Your task to perform on an android device: toggle improve location accuracy Image 0: 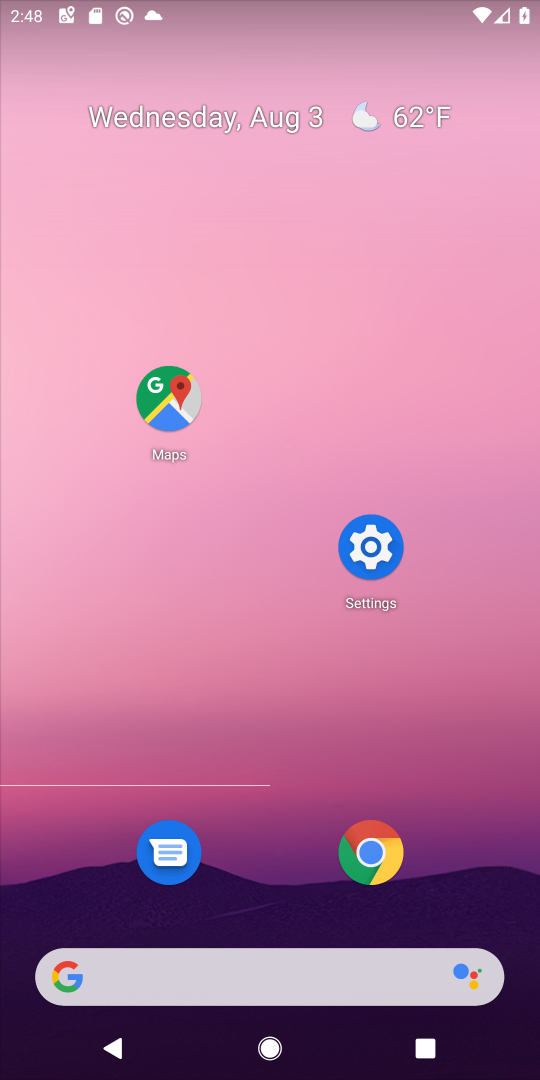
Step 0: press home button
Your task to perform on an android device: toggle improve location accuracy Image 1: 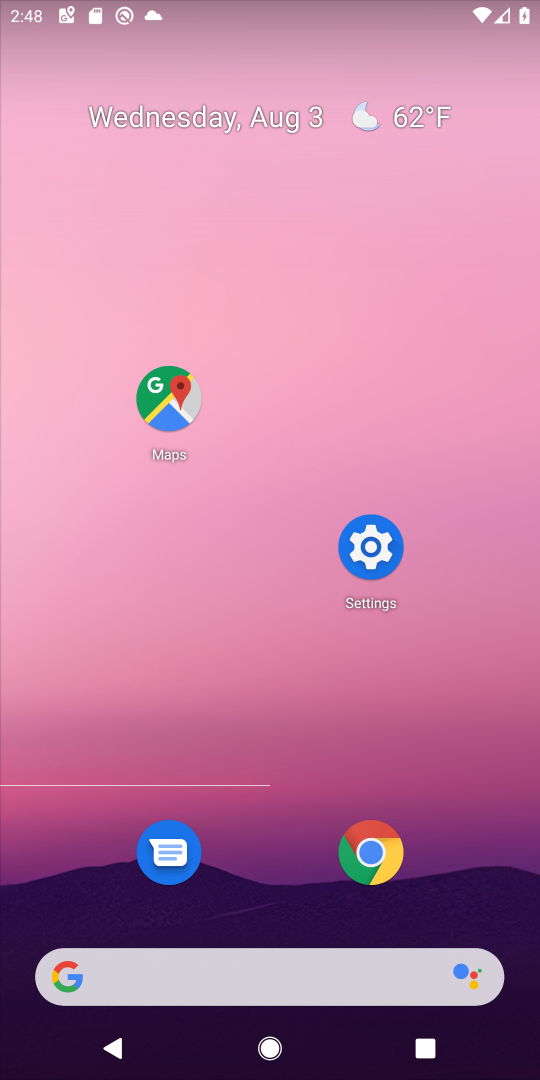
Step 1: drag from (226, 968) to (336, 206)
Your task to perform on an android device: toggle improve location accuracy Image 2: 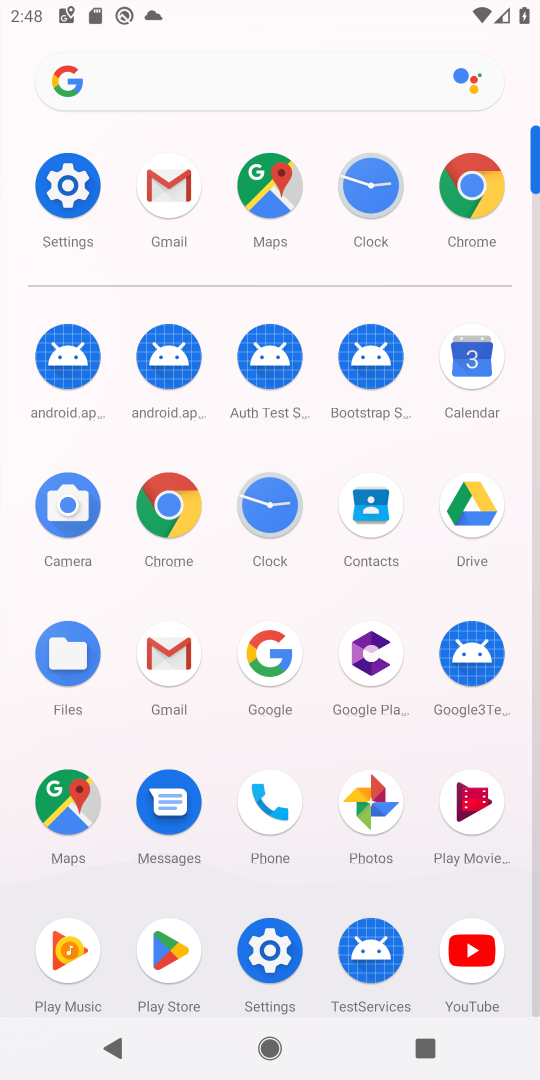
Step 2: click (66, 182)
Your task to perform on an android device: toggle improve location accuracy Image 3: 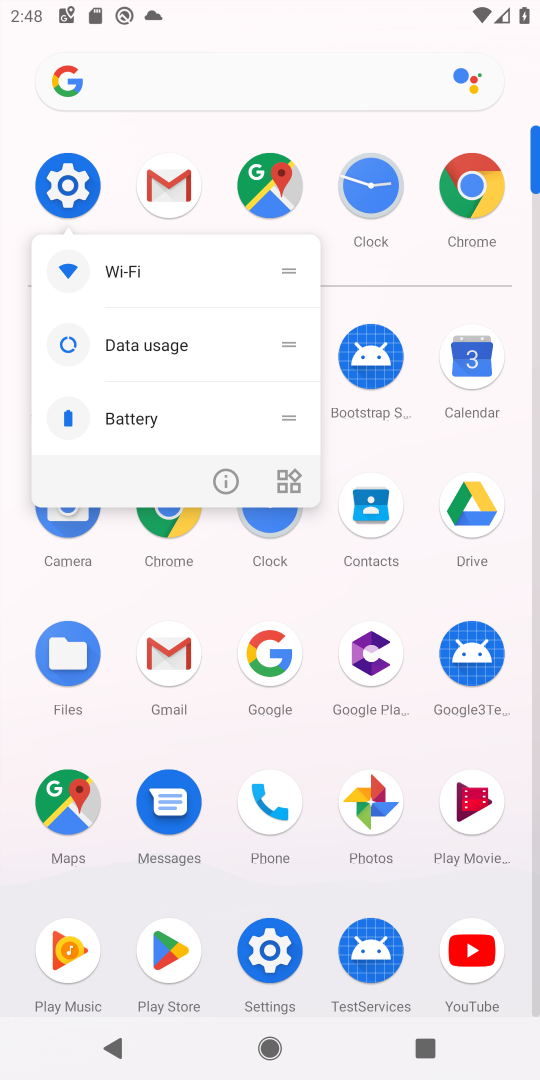
Step 3: click (66, 184)
Your task to perform on an android device: toggle improve location accuracy Image 4: 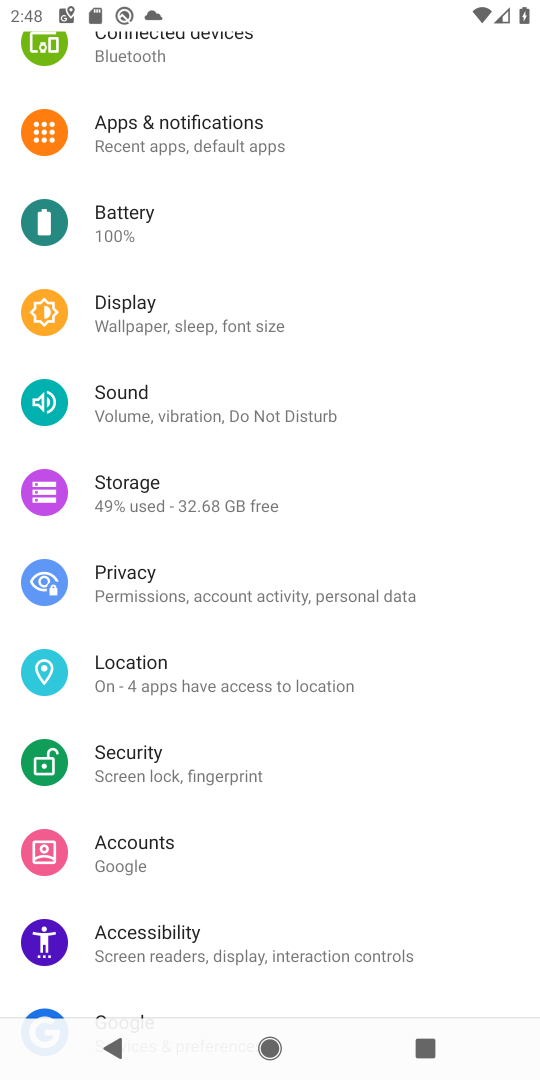
Step 4: click (187, 672)
Your task to perform on an android device: toggle improve location accuracy Image 5: 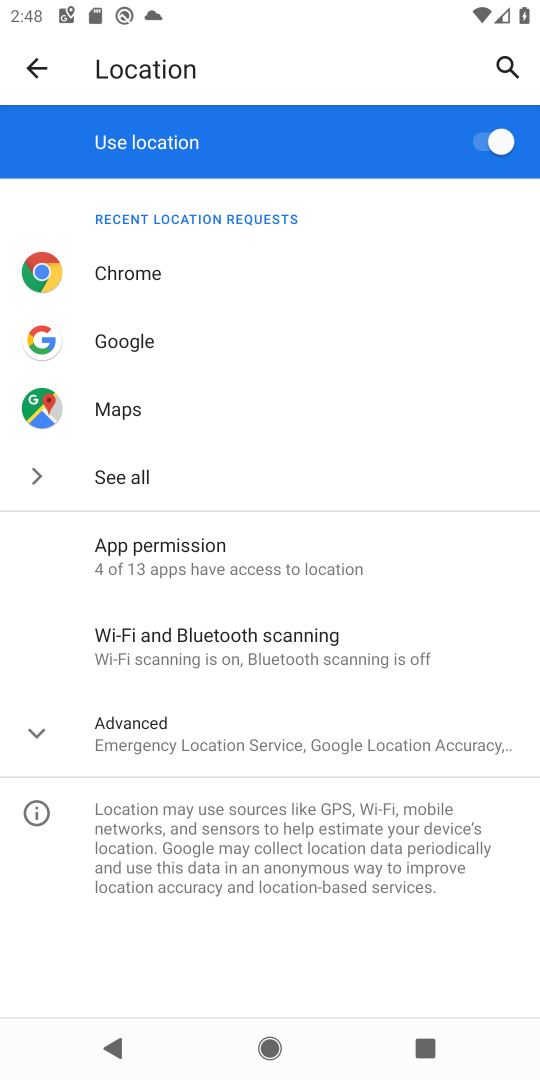
Step 5: click (163, 735)
Your task to perform on an android device: toggle improve location accuracy Image 6: 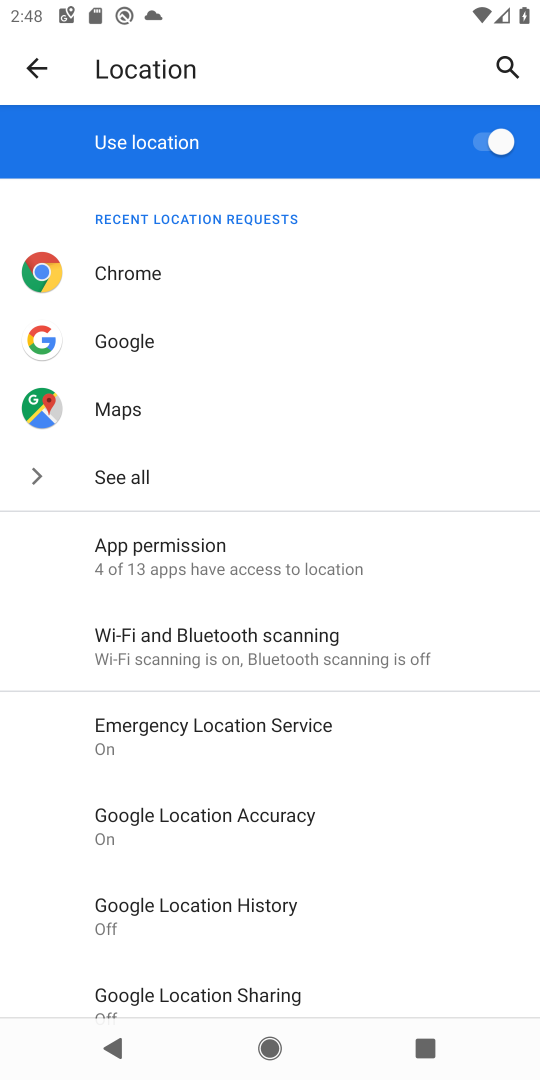
Step 6: click (227, 827)
Your task to perform on an android device: toggle improve location accuracy Image 7: 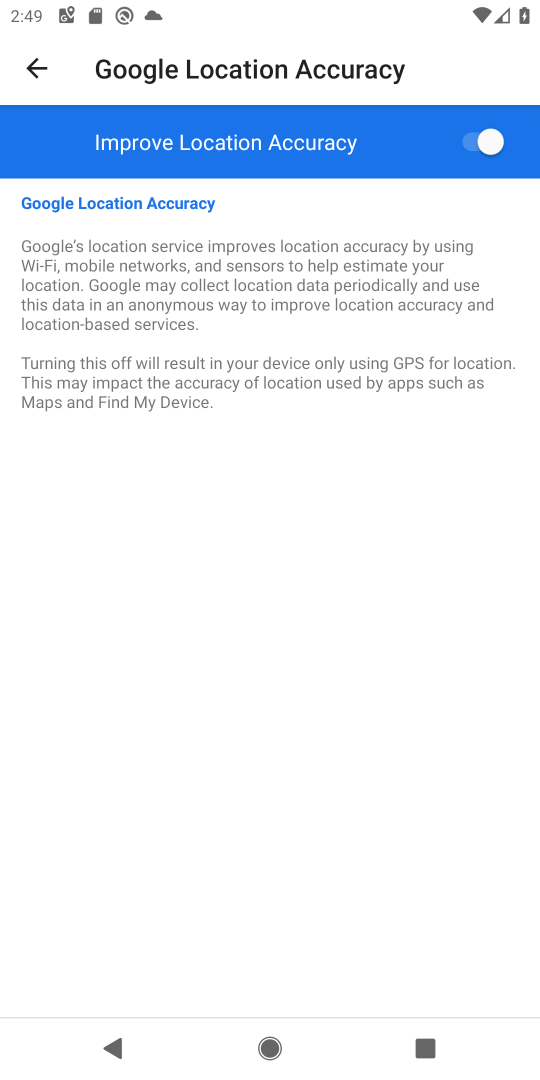
Step 7: click (473, 144)
Your task to perform on an android device: toggle improve location accuracy Image 8: 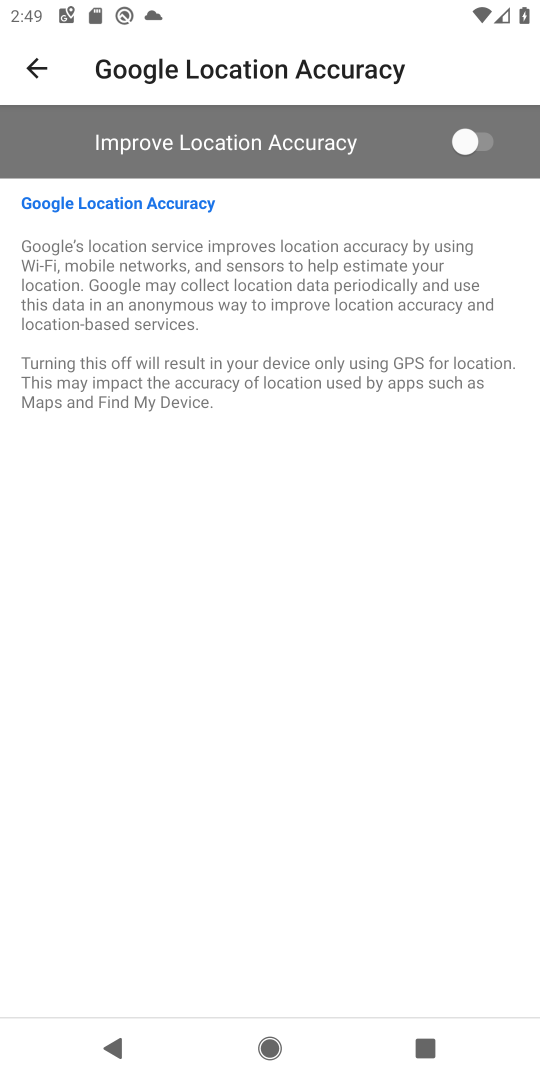
Step 8: task complete